Your task to perform on an android device: Open the Play Movies app and select the watchlist tab. Image 0: 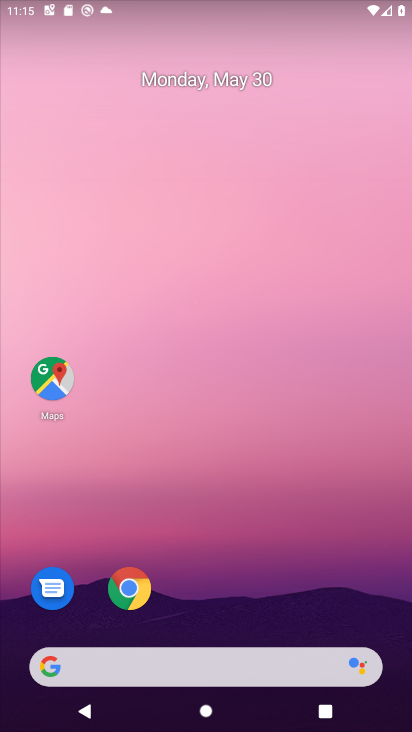
Step 0: drag from (338, 705) to (381, 22)
Your task to perform on an android device: Open the Play Movies app and select the watchlist tab. Image 1: 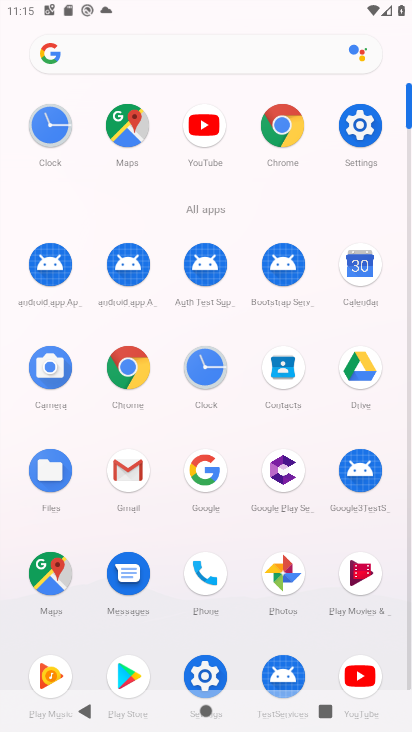
Step 1: drag from (276, 669) to (308, 383)
Your task to perform on an android device: Open the Play Movies app and select the watchlist tab. Image 2: 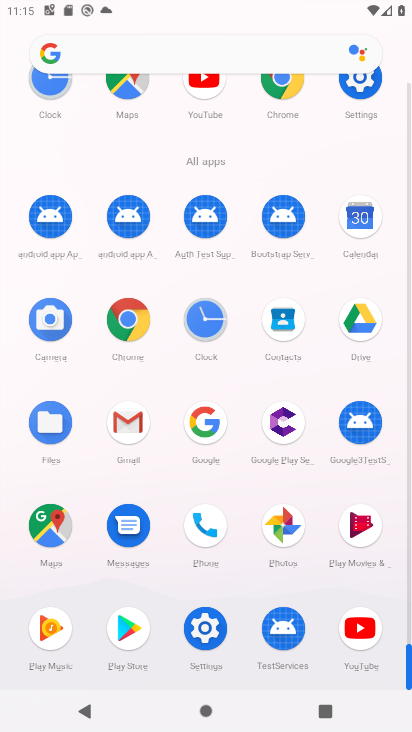
Step 2: click (368, 541)
Your task to perform on an android device: Open the Play Movies app and select the watchlist tab. Image 3: 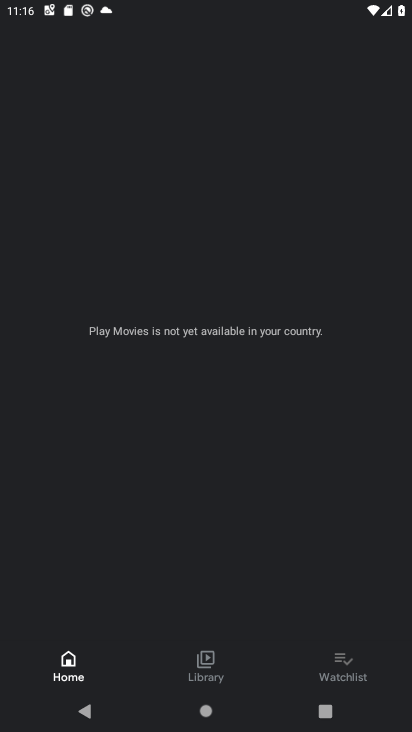
Step 3: click (358, 681)
Your task to perform on an android device: Open the Play Movies app and select the watchlist tab. Image 4: 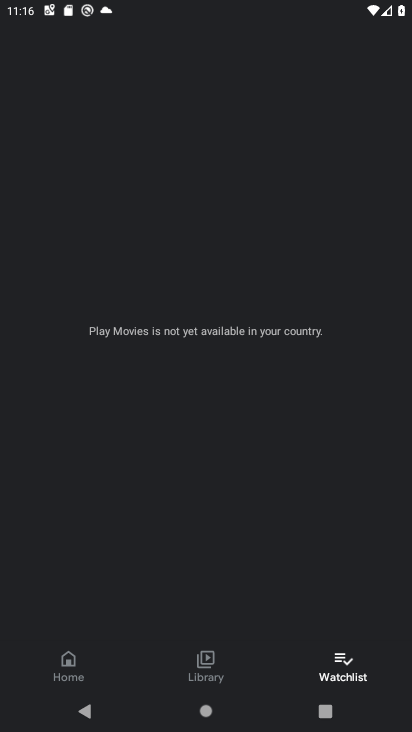
Step 4: task complete